Your task to perform on an android device: Show me recent news Image 0: 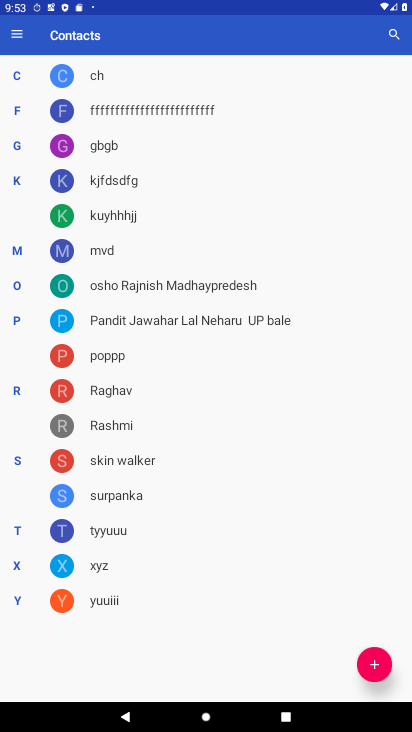
Step 0: press home button
Your task to perform on an android device: Show me recent news Image 1: 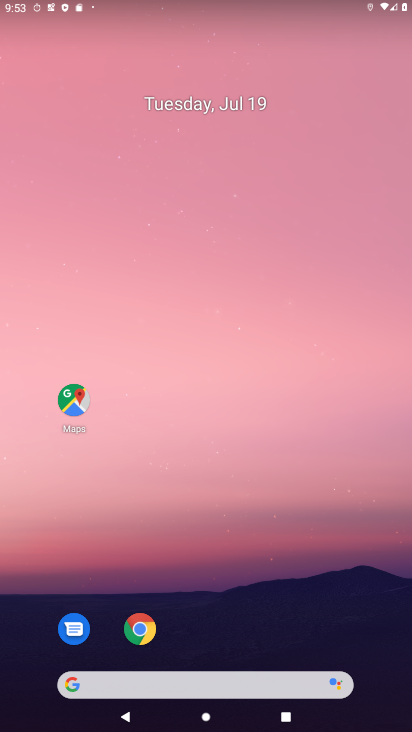
Step 1: drag from (234, 563) to (232, 4)
Your task to perform on an android device: Show me recent news Image 2: 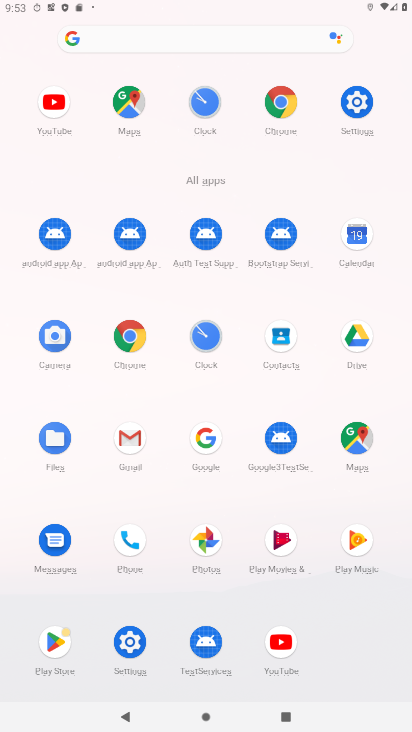
Step 2: click (154, 32)
Your task to perform on an android device: Show me recent news Image 3: 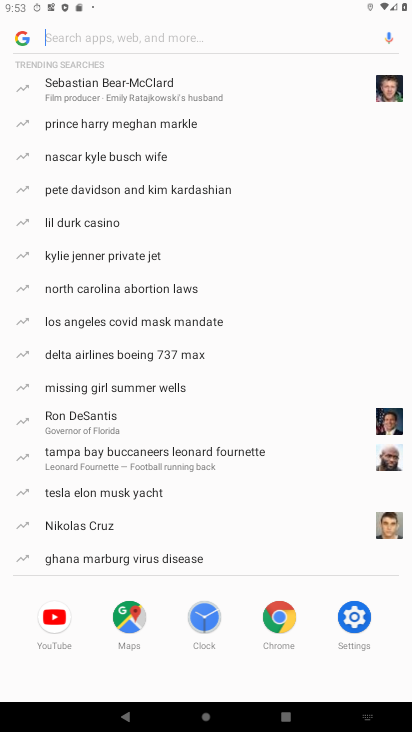
Step 3: type "recent news"
Your task to perform on an android device: Show me recent news Image 4: 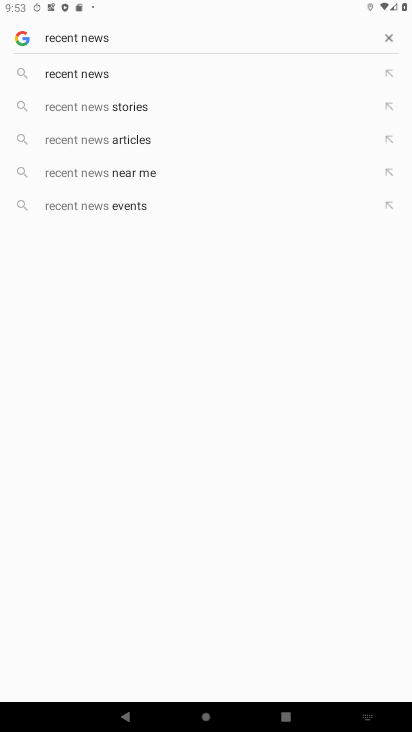
Step 4: click (118, 79)
Your task to perform on an android device: Show me recent news Image 5: 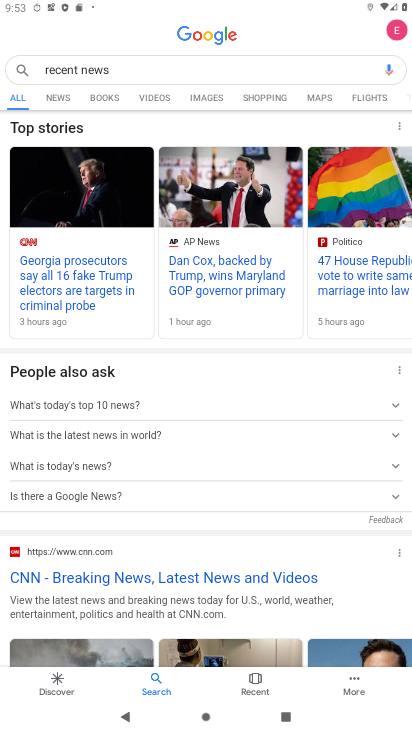
Step 5: task complete